Your task to perform on an android device: Open Reddit.com Image 0: 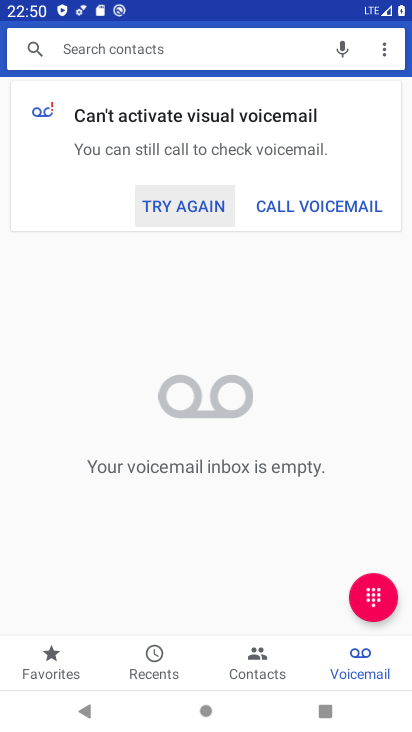
Step 0: press home button
Your task to perform on an android device: Open Reddit.com Image 1: 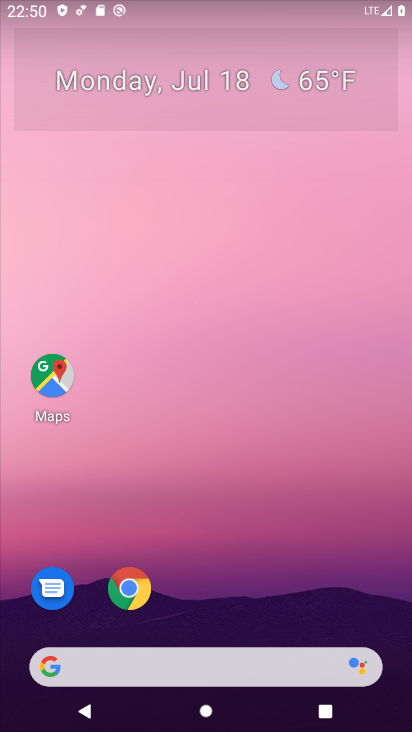
Step 1: click (49, 666)
Your task to perform on an android device: Open Reddit.com Image 2: 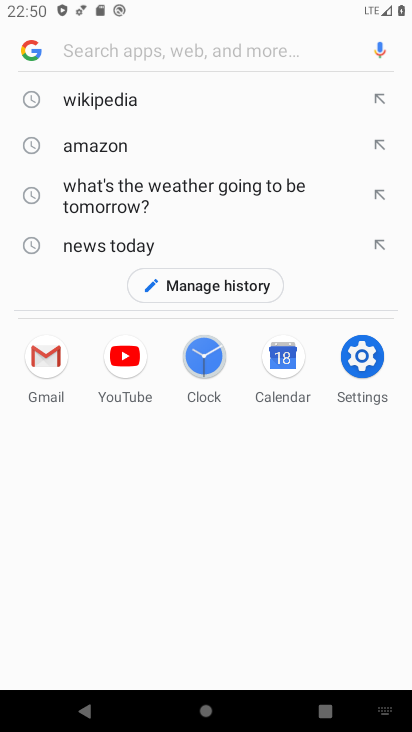
Step 2: type "Reddit.com"
Your task to perform on an android device: Open Reddit.com Image 3: 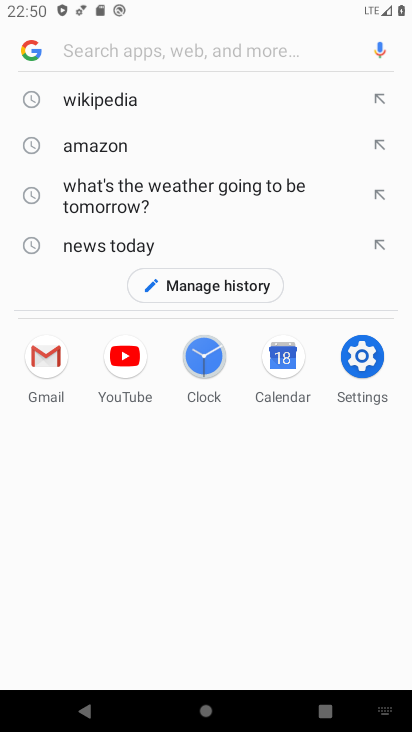
Step 3: click (107, 50)
Your task to perform on an android device: Open Reddit.com Image 4: 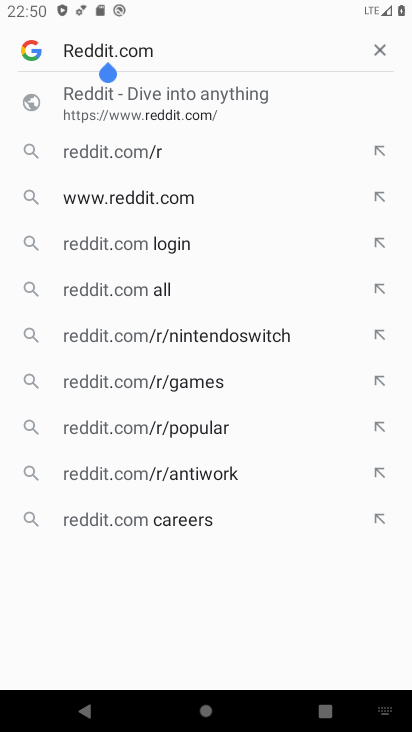
Step 4: press enter
Your task to perform on an android device: Open Reddit.com Image 5: 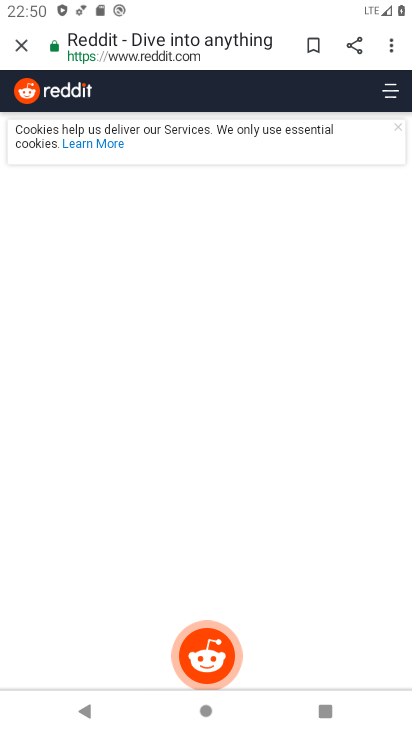
Step 5: task complete